Your task to perform on an android device: Is it going to rain this weekend? Image 0: 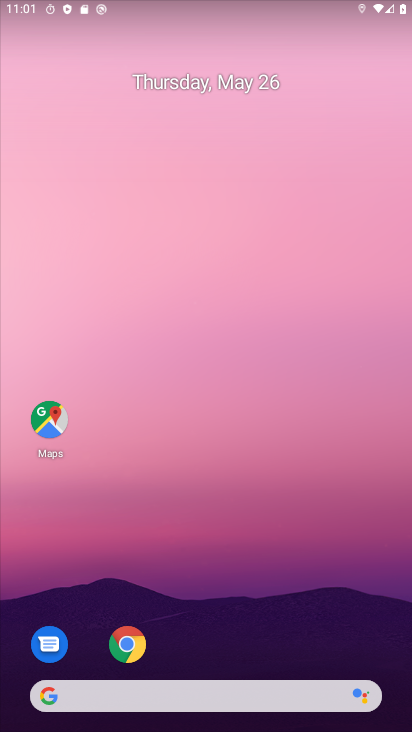
Step 0: click (230, 702)
Your task to perform on an android device: Is it going to rain this weekend? Image 1: 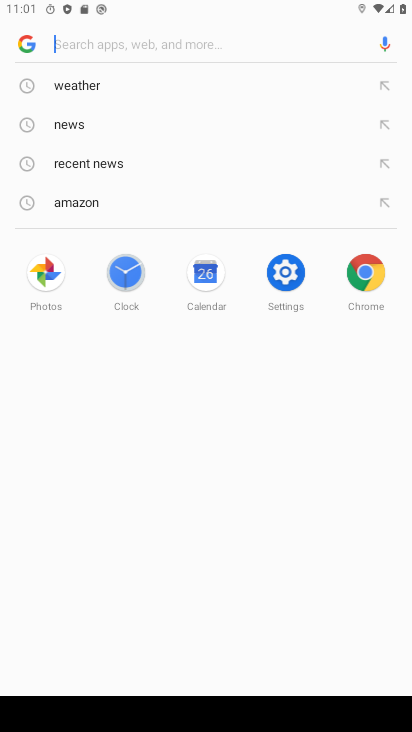
Step 1: type "weather this weekend"
Your task to perform on an android device: Is it going to rain this weekend? Image 2: 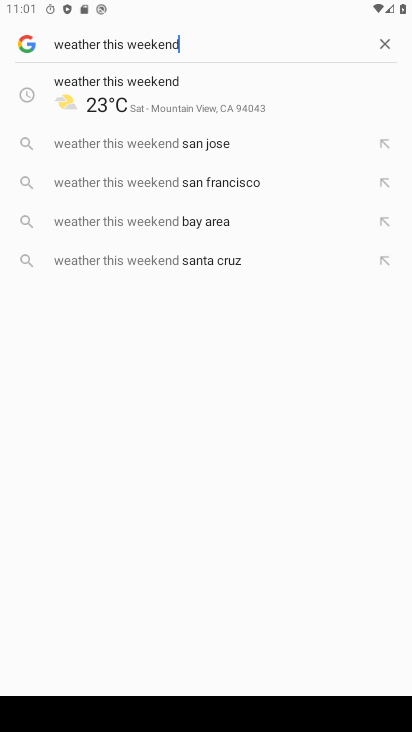
Step 2: click (166, 79)
Your task to perform on an android device: Is it going to rain this weekend? Image 3: 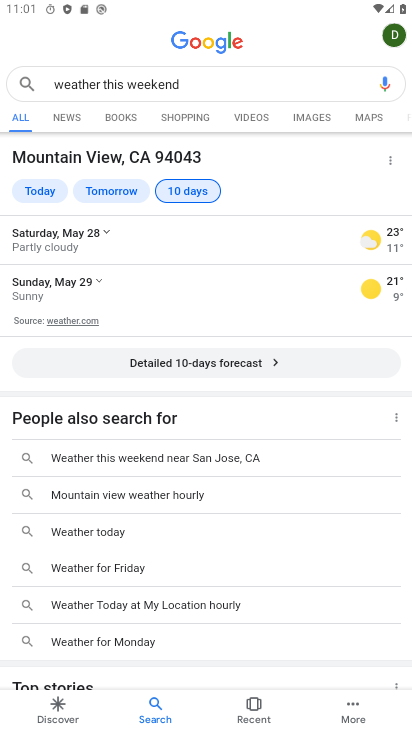
Step 3: task complete